Your task to perform on an android device: Open maps Image 0: 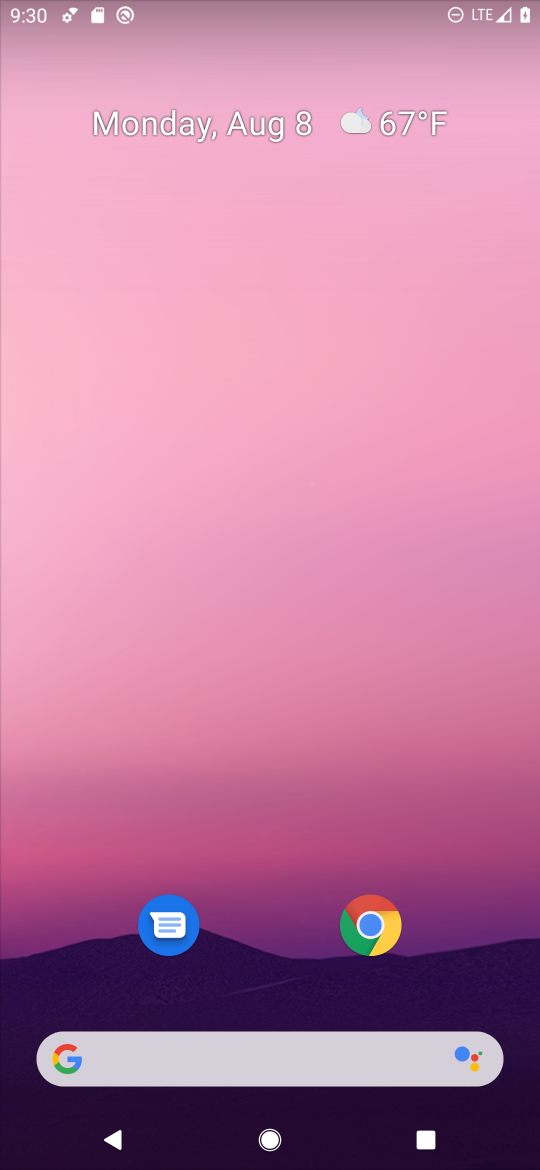
Step 0: drag from (252, 880) to (338, 66)
Your task to perform on an android device: Open maps Image 1: 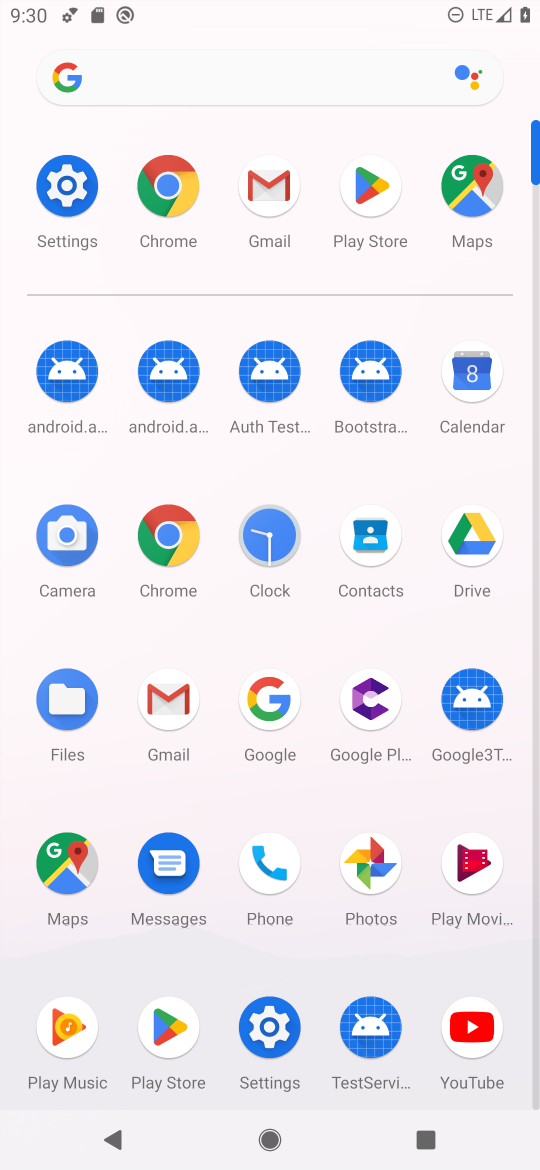
Step 1: click (57, 853)
Your task to perform on an android device: Open maps Image 2: 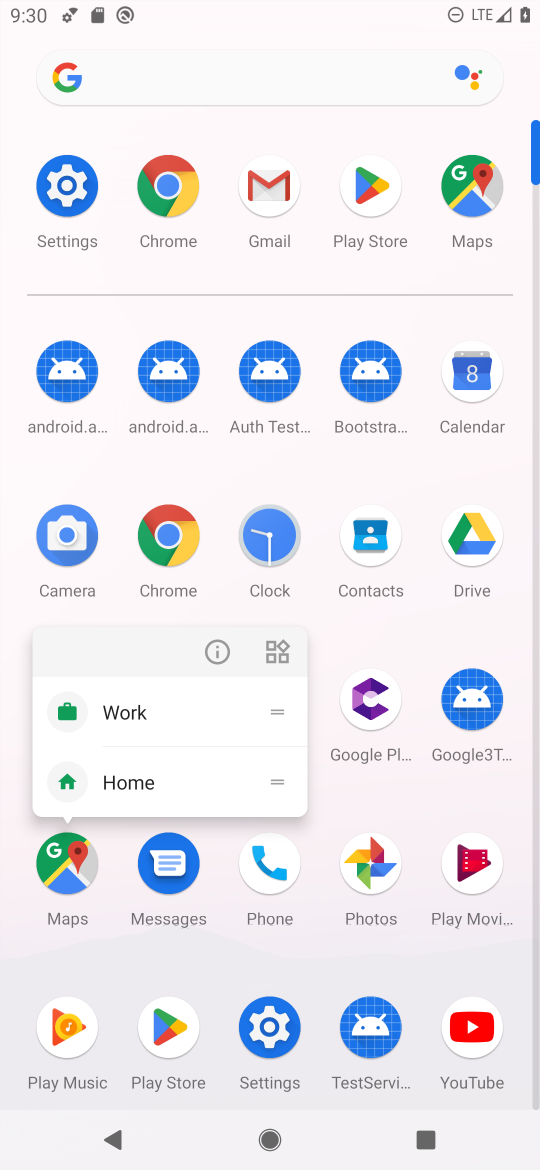
Step 2: click (61, 862)
Your task to perform on an android device: Open maps Image 3: 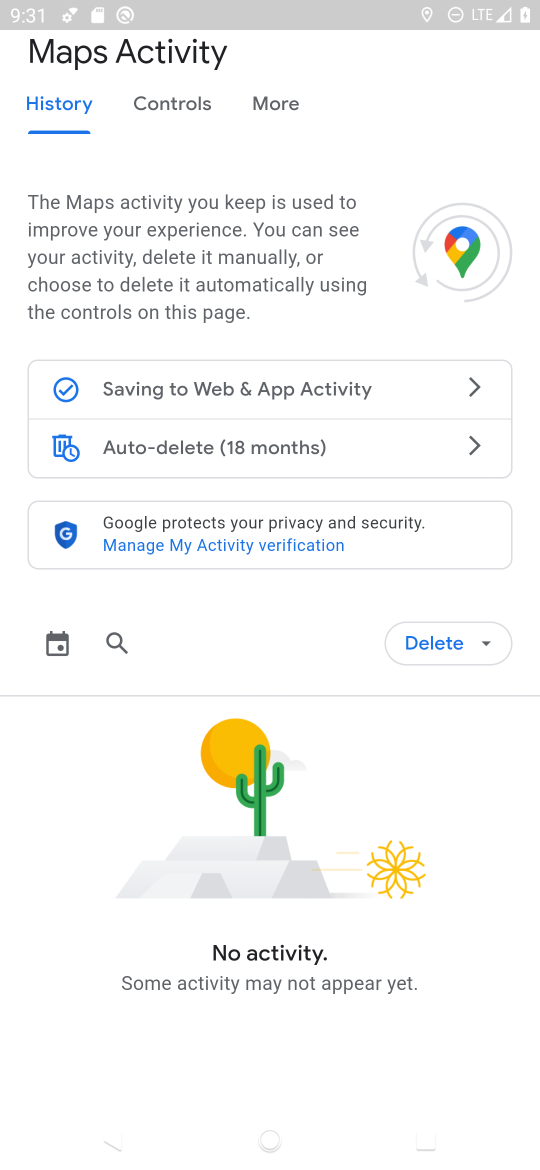
Step 3: task complete